Your task to perform on an android device: Open Youtube and go to "Your channel" Image 0: 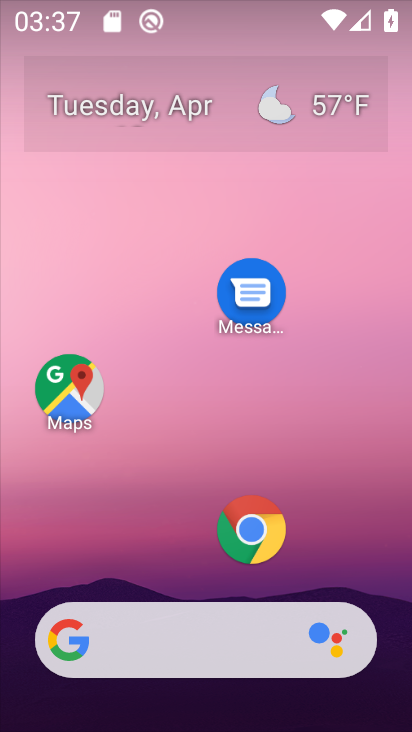
Step 0: drag from (187, 525) to (152, 199)
Your task to perform on an android device: Open Youtube and go to "Your channel" Image 1: 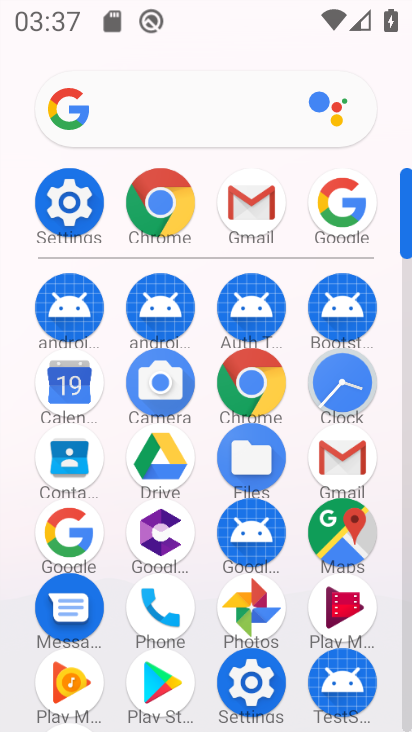
Step 1: drag from (203, 586) to (191, 294)
Your task to perform on an android device: Open Youtube and go to "Your channel" Image 2: 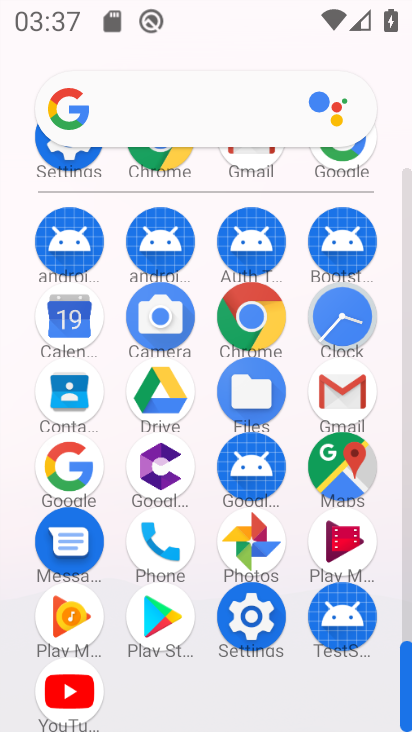
Step 2: click (71, 685)
Your task to perform on an android device: Open Youtube and go to "Your channel" Image 3: 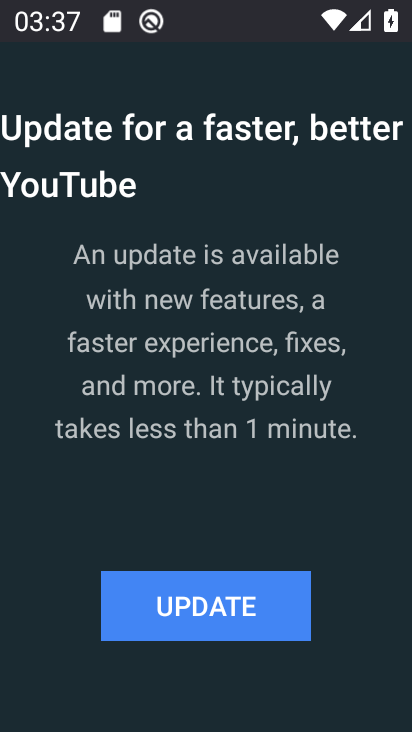
Step 3: click (212, 611)
Your task to perform on an android device: Open Youtube and go to "Your channel" Image 4: 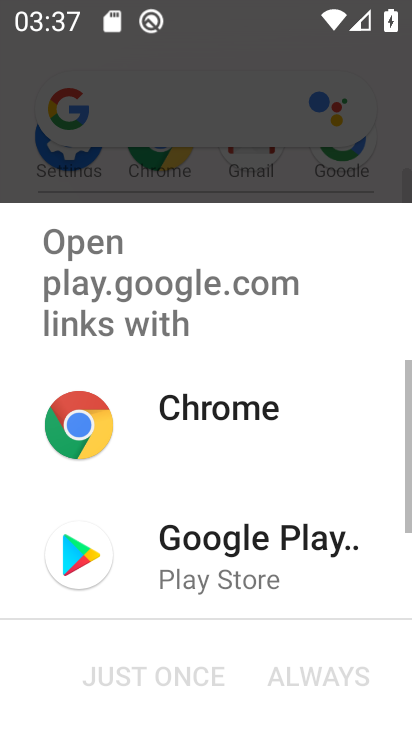
Step 4: click (212, 543)
Your task to perform on an android device: Open Youtube and go to "Your channel" Image 5: 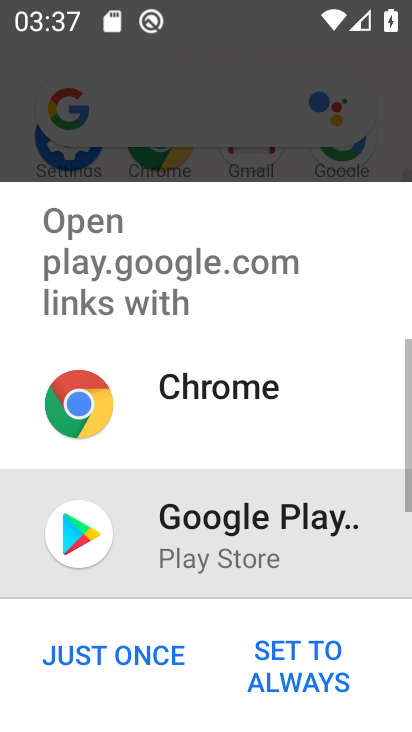
Step 5: click (166, 649)
Your task to perform on an android device: Open Youtube and go to "Your channel" Image 6: 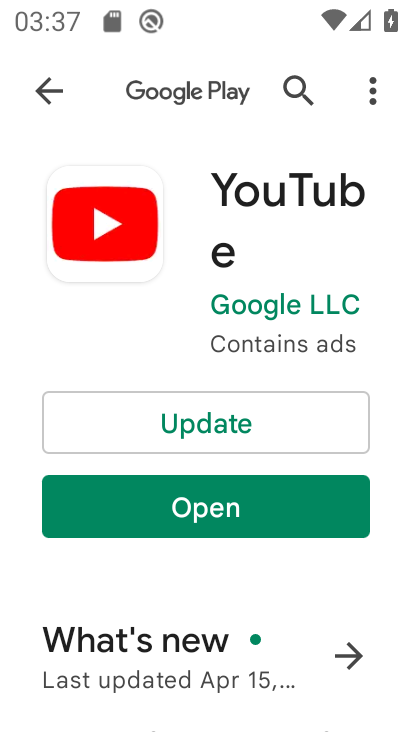
Step 6: click (188, 427)
Your task to perform on an android device: Open Youtube and go to "Your channel" Image 7: 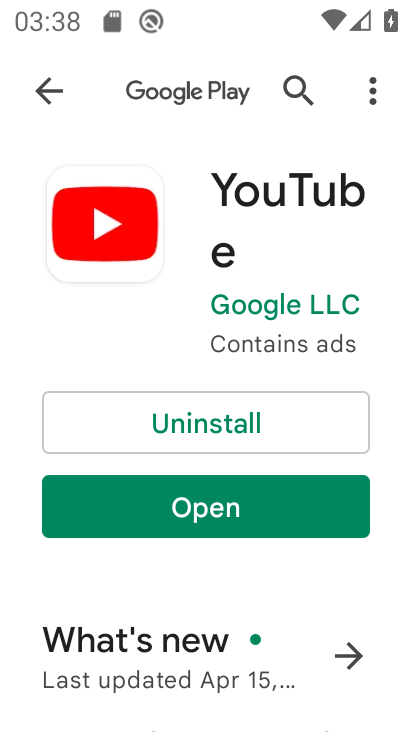
Step 7: click (209, 507)
Your task to perform on an android device: Open Youtube and go to "Your channel" Image 8: 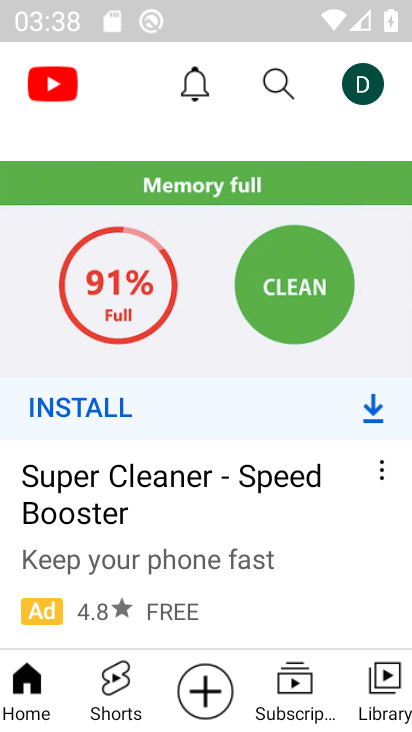
Step 8: click (357, 76)
Your task to perform on an android device: Open Youtube and go to "Your channel" Image 9: 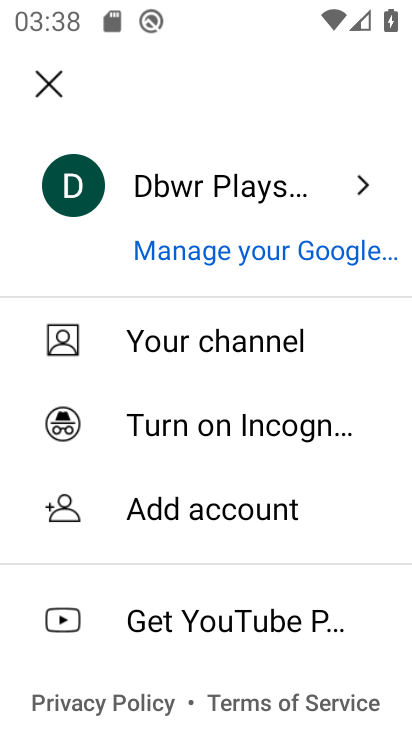
Step 9: click (255, 339)
Your task to perform on an android device: Open Youtube and go to "Your channel" Image 10: 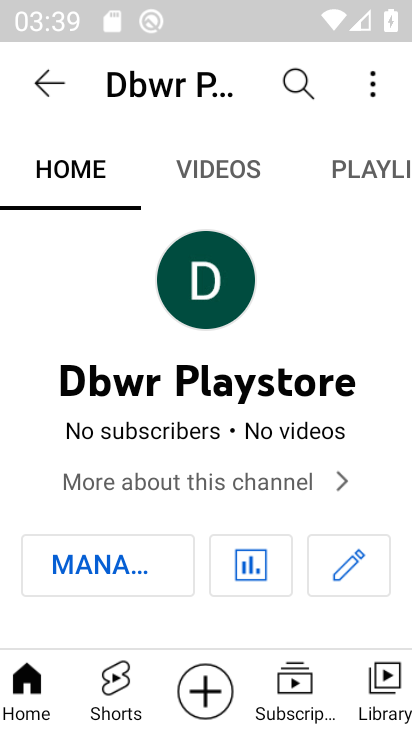
Step 10: task complete